Your task to perform on an android device: Clear all items from cart on newegg. Image 0: 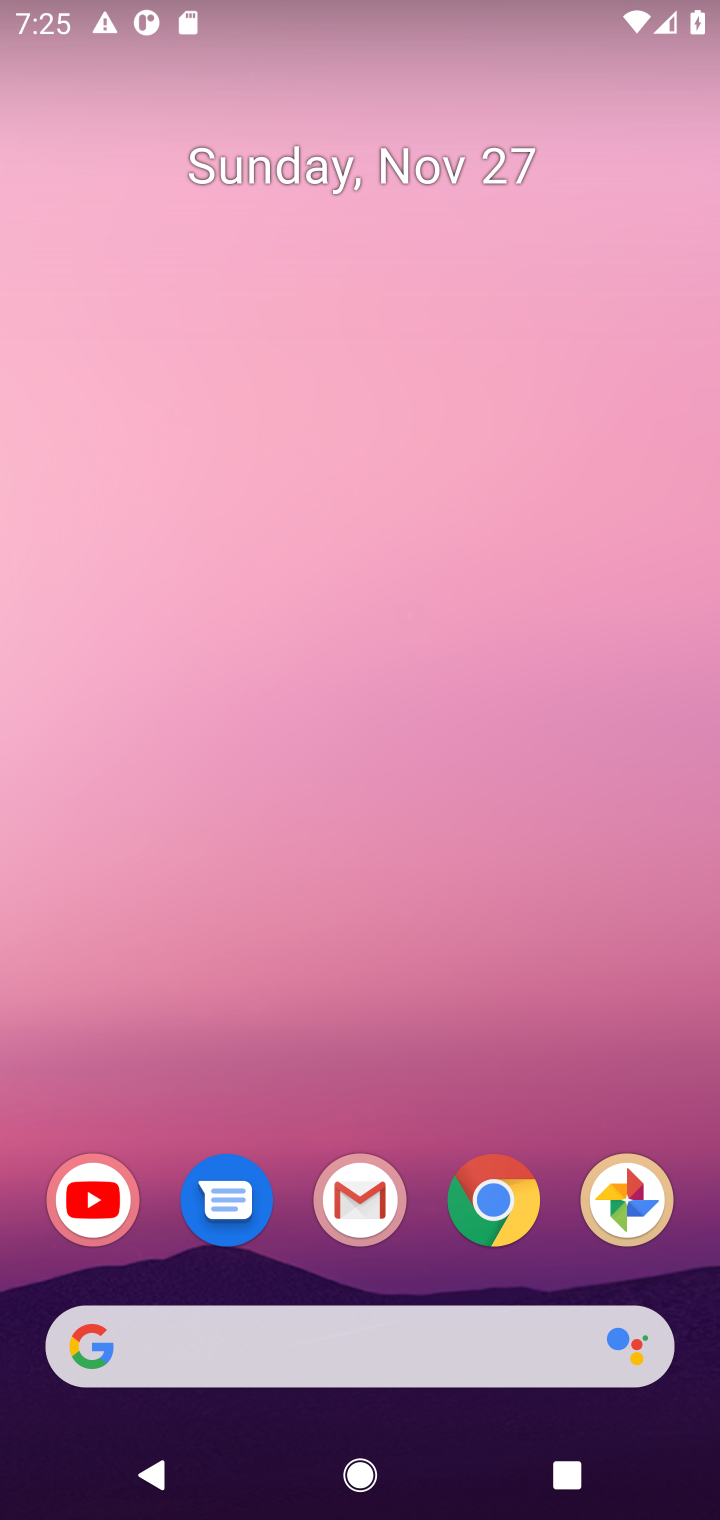
Step 0: click (507, 1200)
Your task to perform on an android device: Clear all items from cart on newegg. Image 1: 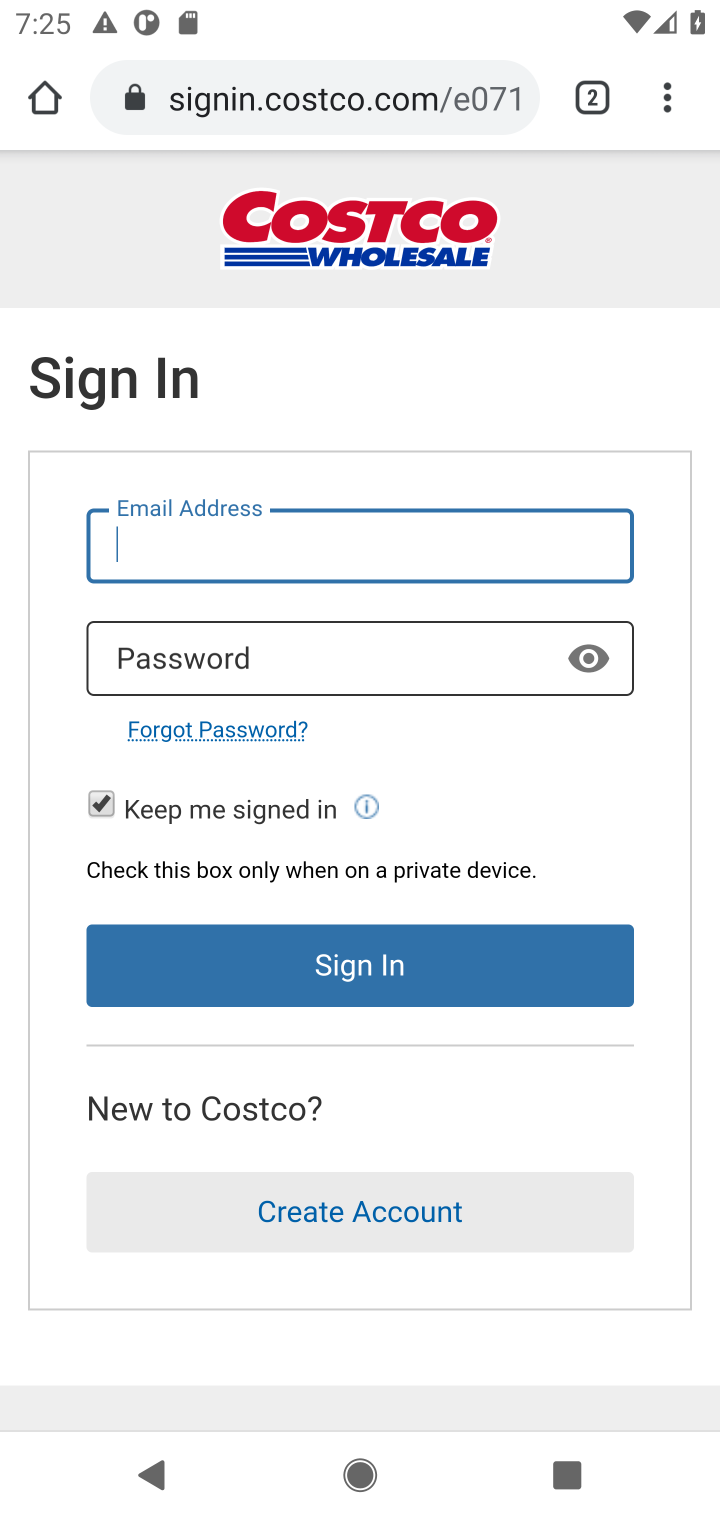
Step 1: click (302, 94)
Your task to perform on an android device: Clear all items from cart on newegg. Image 2: 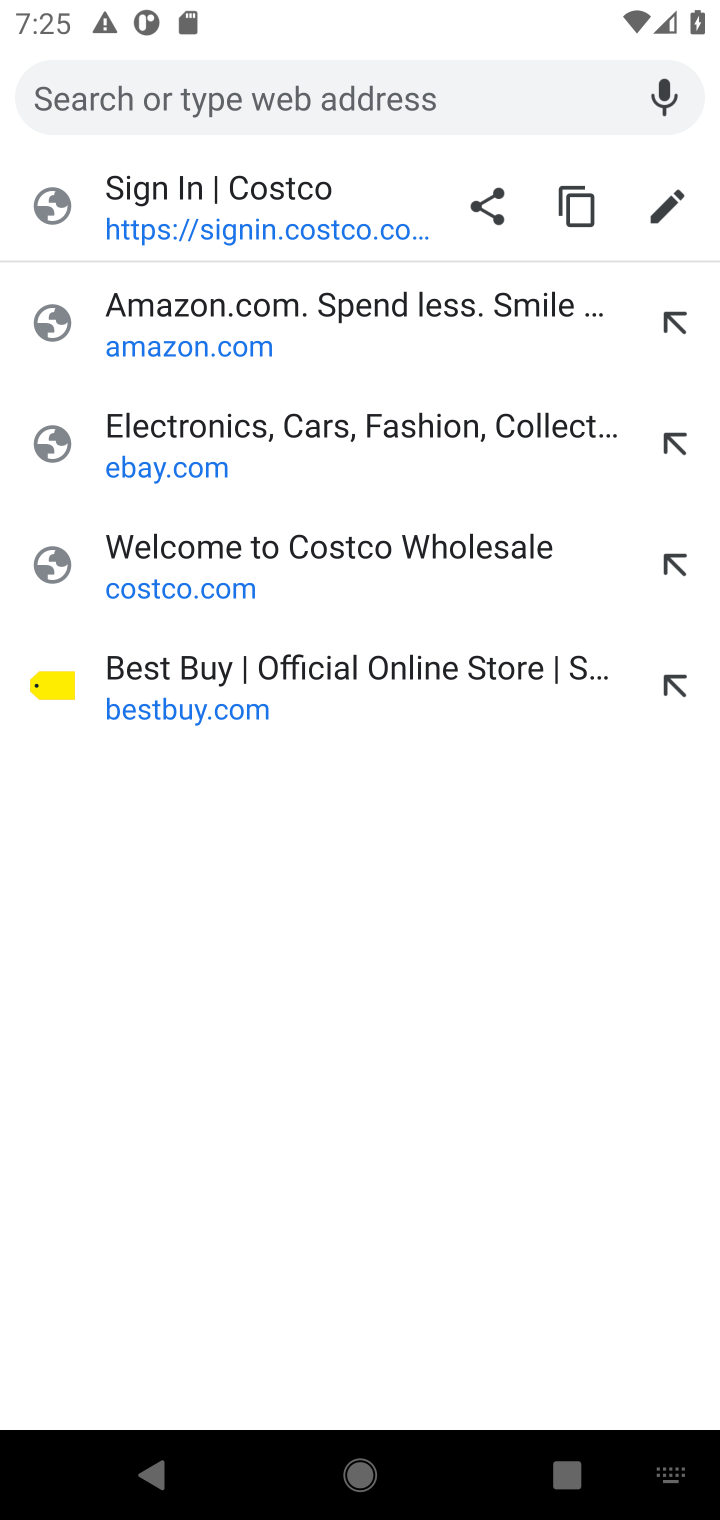
Step 2: type "newegg.com"
Your task to perform on an android device: Clear all items from cart on newegg. Image 3: 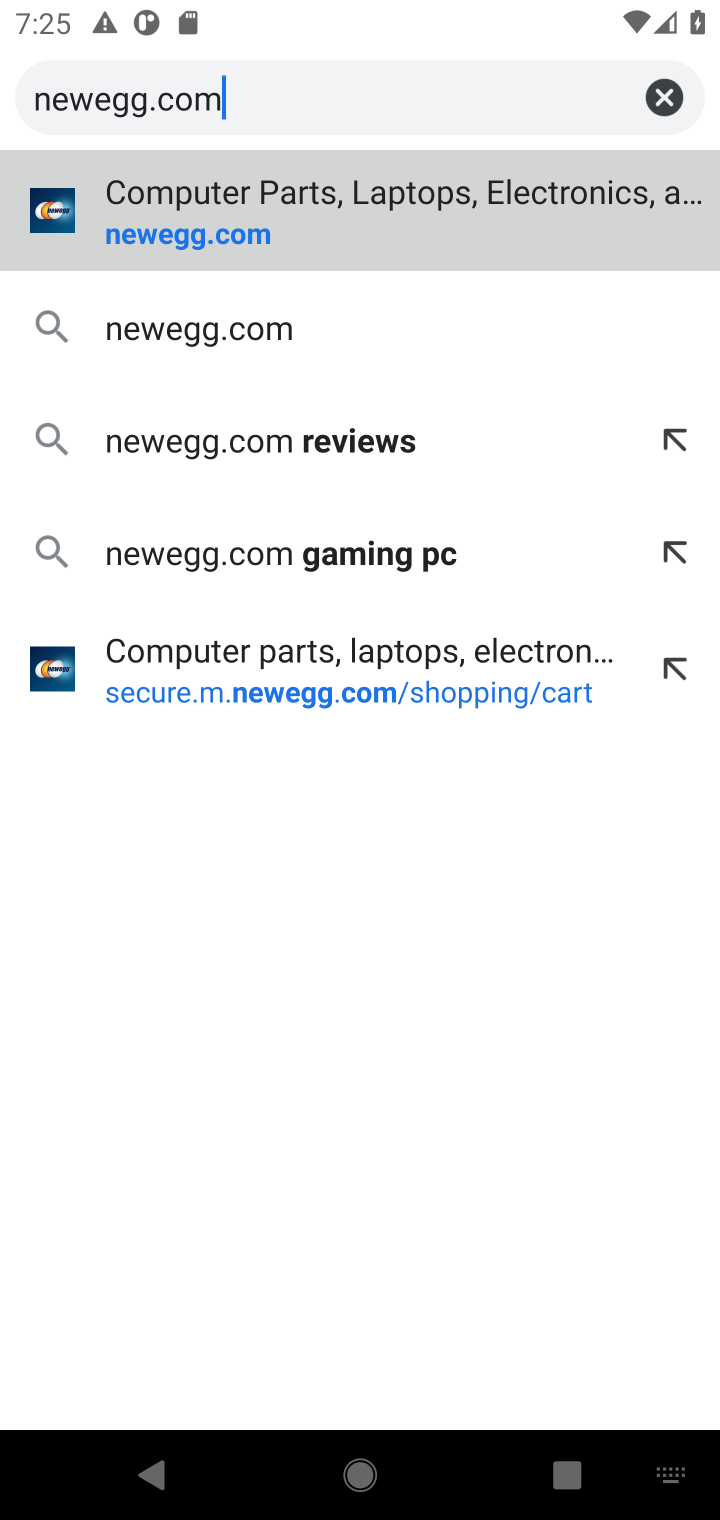
Step 3: click (205, 242)
Your task to perform on an android device: Clear all items from cart on newegg. Image 4: 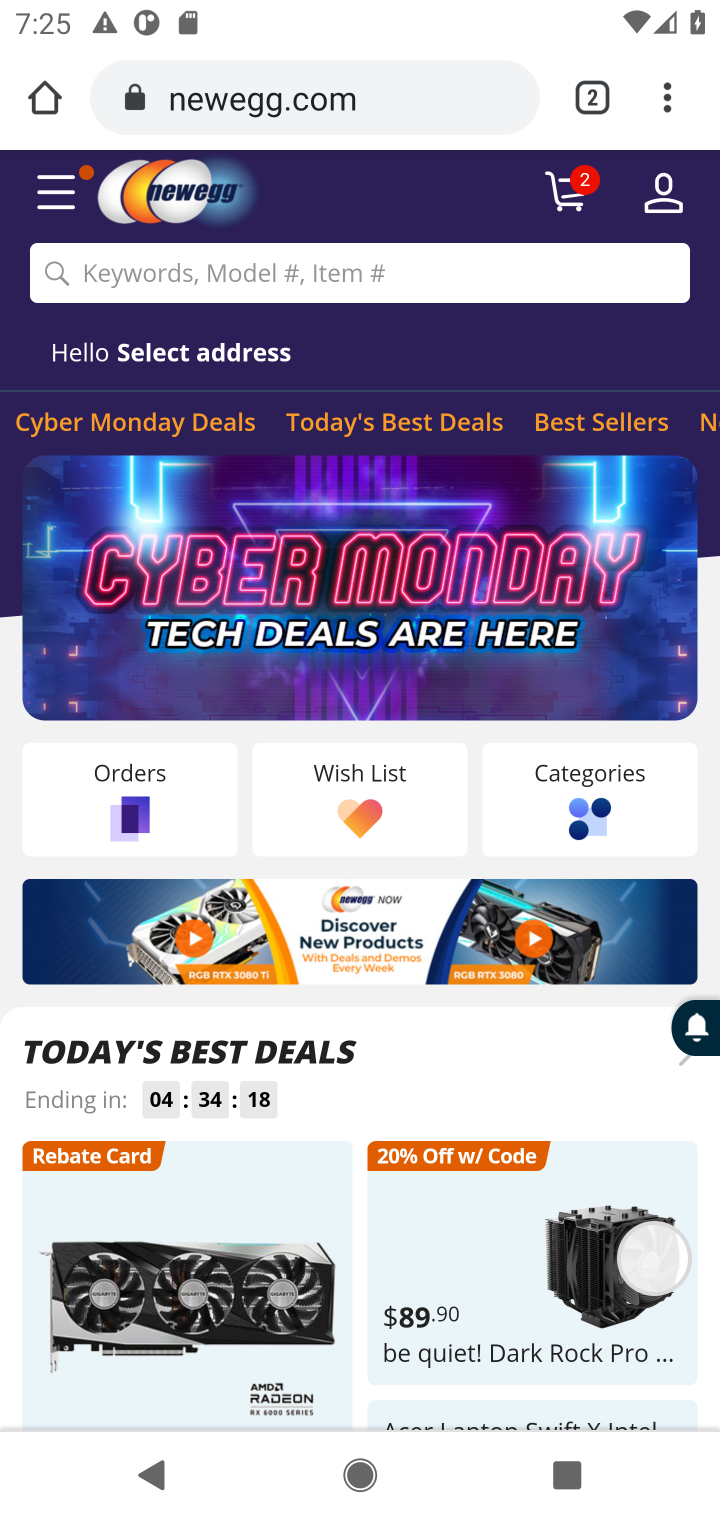
Step 4: click (570, 217)
Your task to perform on an android device: Clear all items from cart on newegg. Image 5: 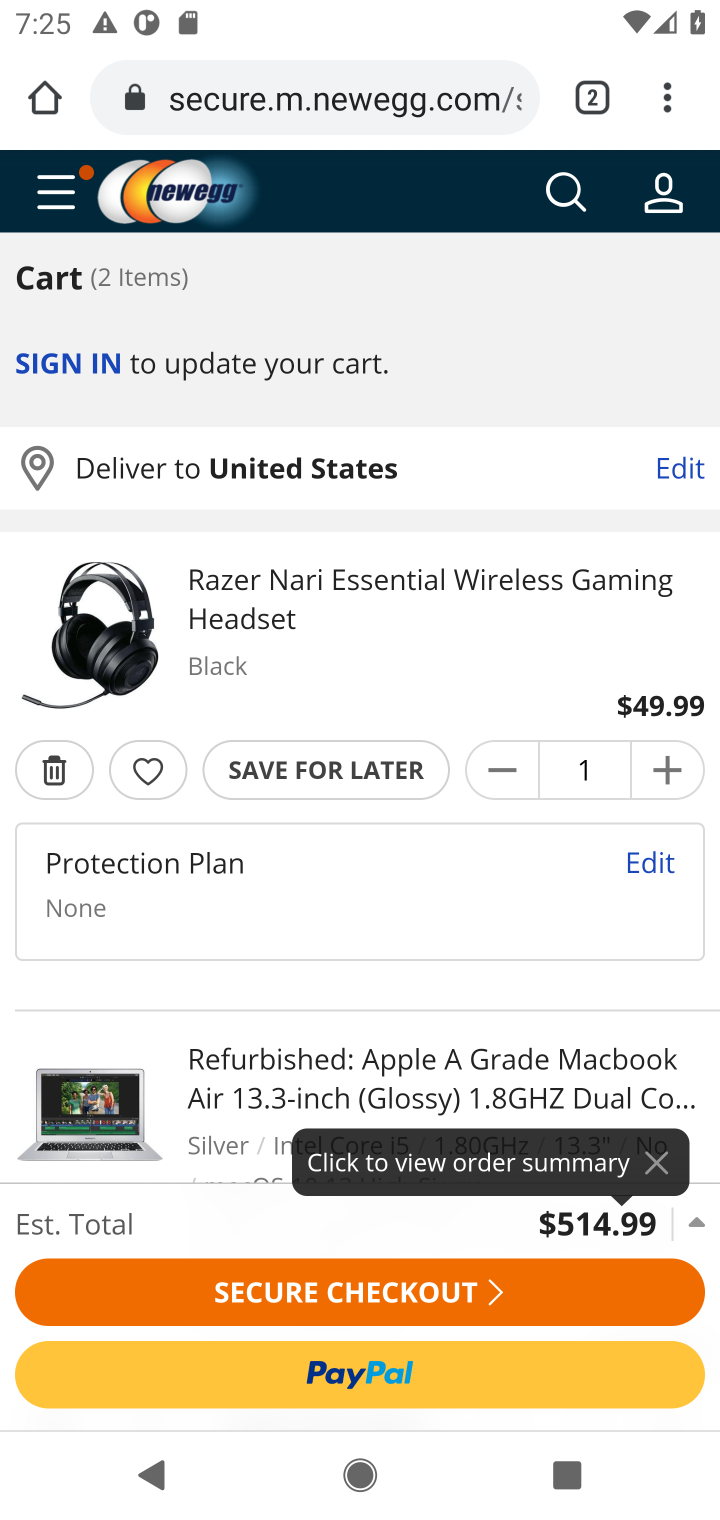
Step 5: click (54, 768)
Your task to perform on an android device: Clear all items from cart on newegg. Image 6: 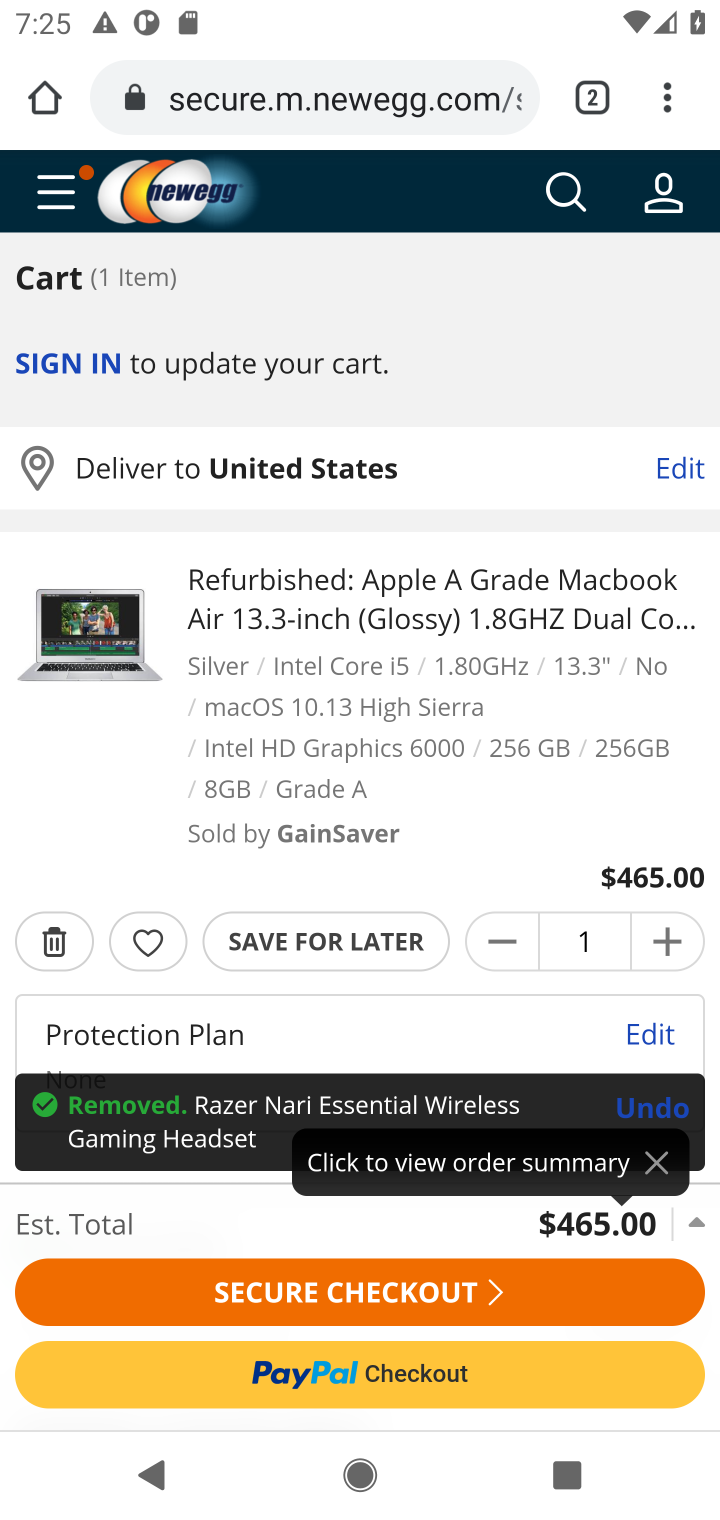
Step 6: click (46, 943)
Your task to perform on an android device: Clear all items from cart on newegg. Image 7: 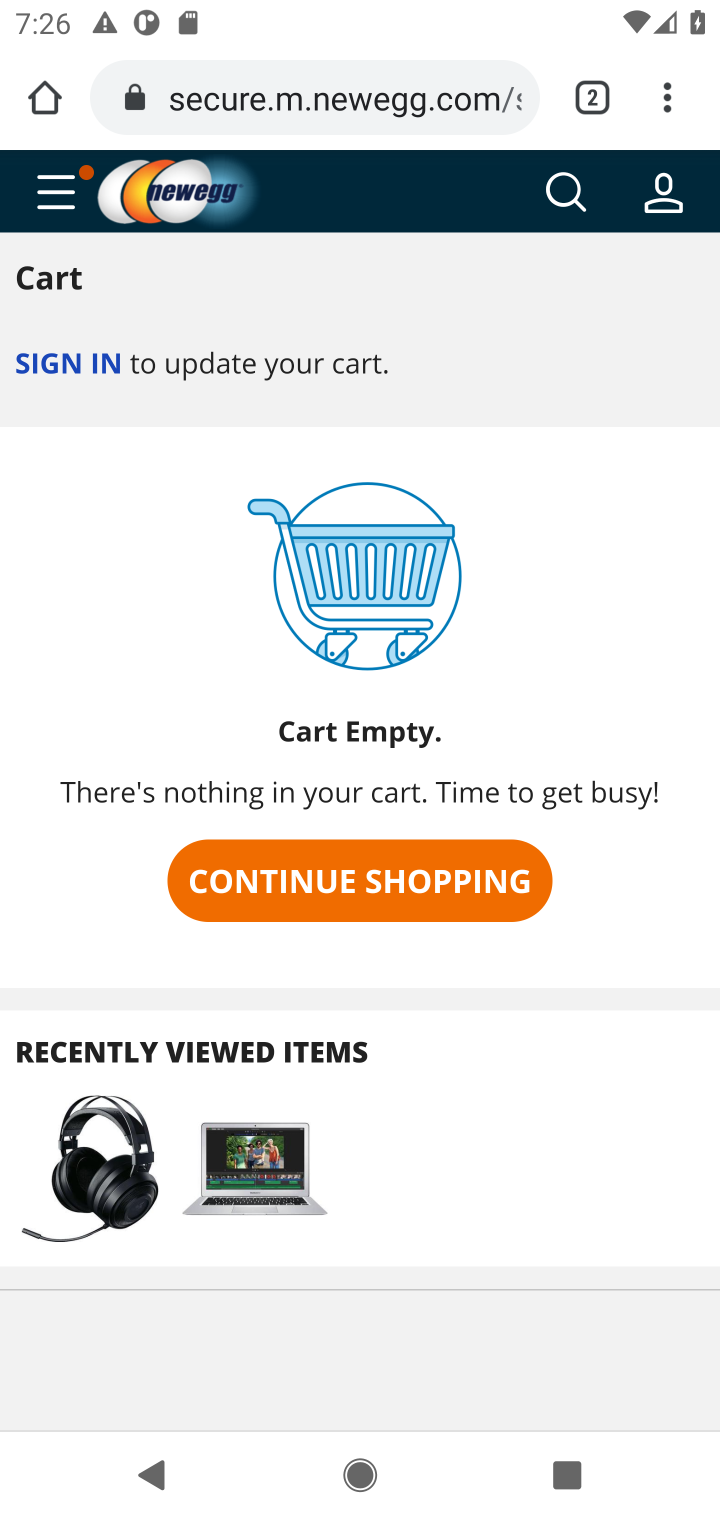
Step 7: task complete